Your task to perform on an android device: check storage Image 0: 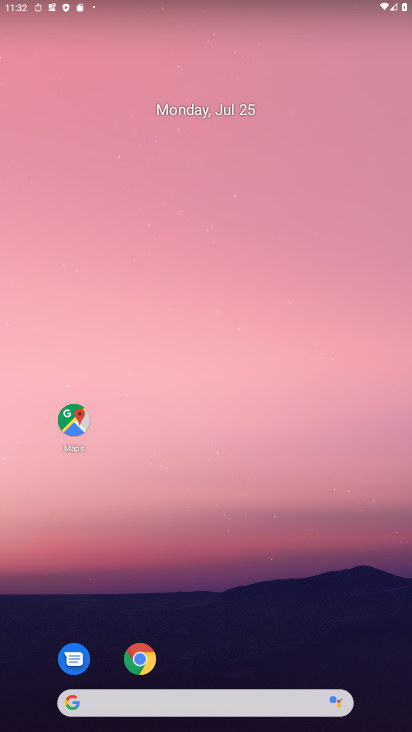
Step 0: drag from (87, 602) to (395, 425)
Your task to perform on an android device: check storage Image 1: 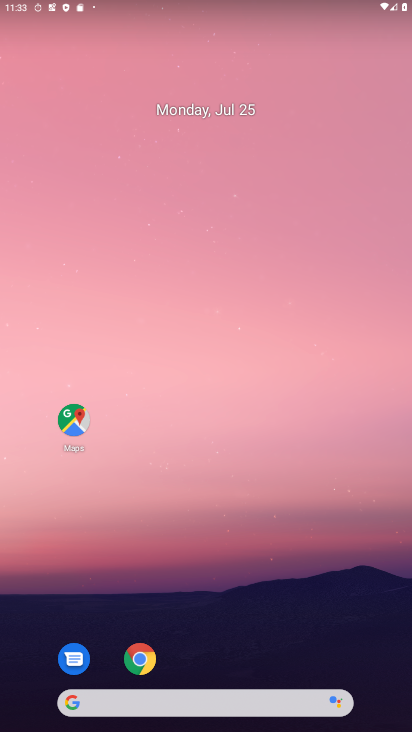
Step 1: drag from (12, 710) to (323, 35)
Your task to perform on an android device: check storage Image 2: 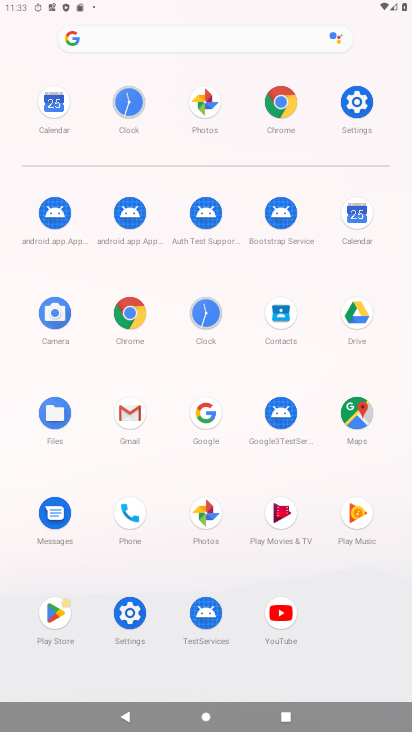
Step 2: click (128, 615)
Your task to perform on an android device: check storage Image 3: 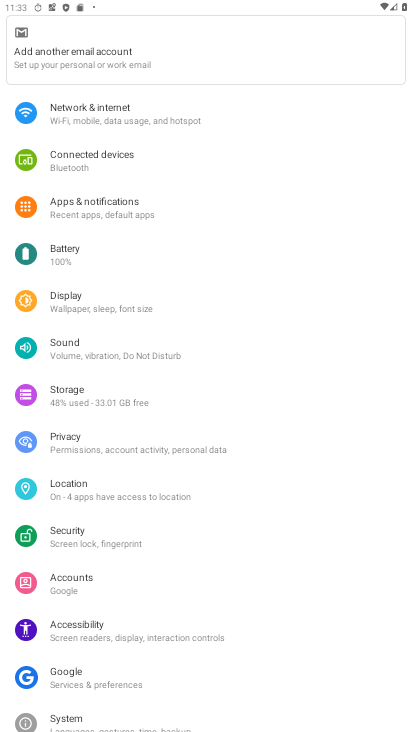
Step 3: click (63, 393)
Your task to perform on an android device: check storage Image 4: 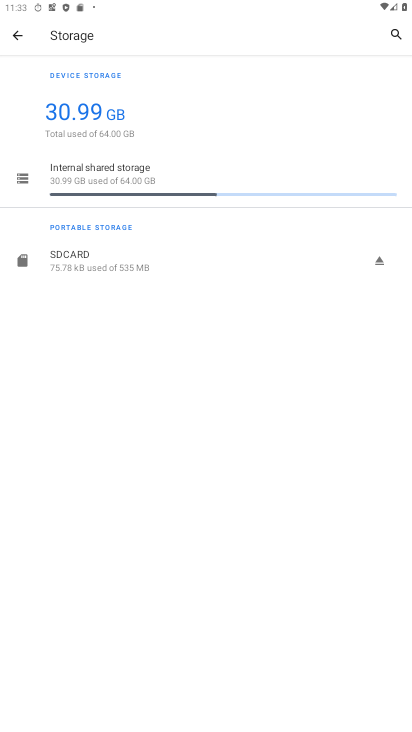
Step 4: task complete